Your task to perform on an android device: turn pop-ups off in chrome Image 0: 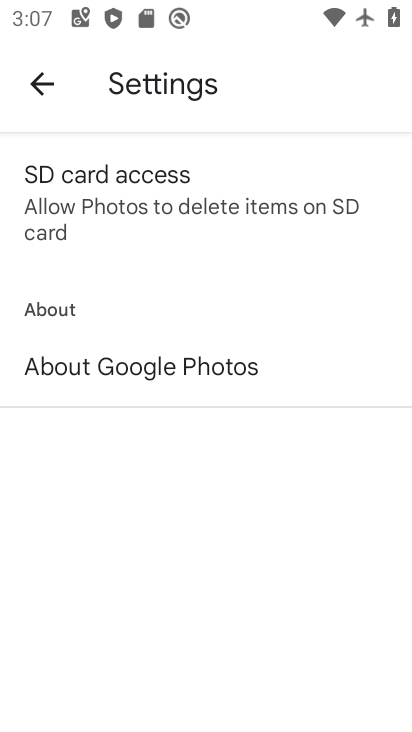
Step 0: press home button
Your task to perform on an android device: turn pop-ups off in chrome Image 1: 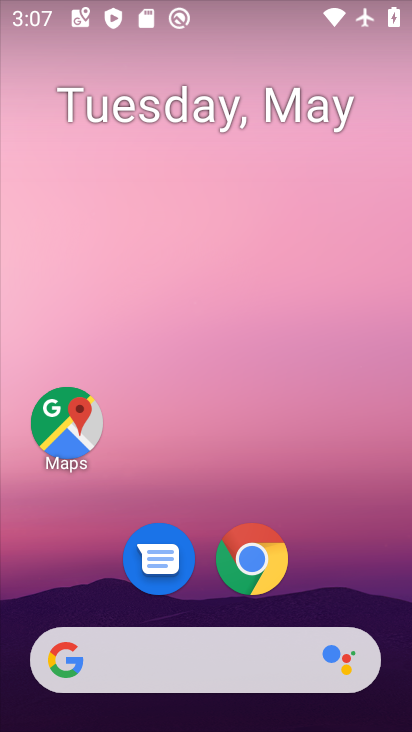
Step 1: click (269, 561)
Your task to perform on an android device: turn pop-ups off in chrome Image 2: 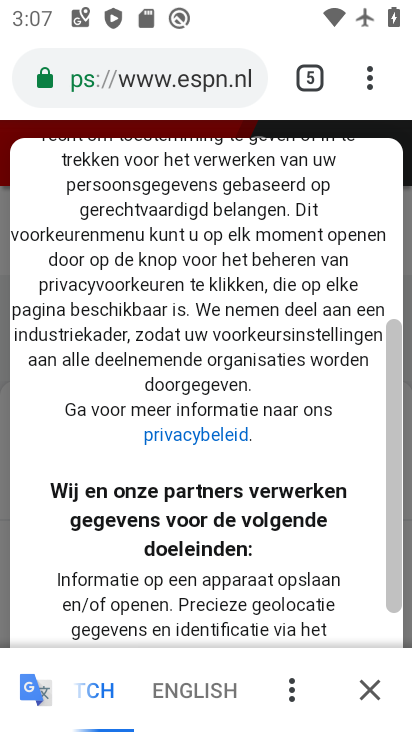
Step 2: drag from (369, 76) to (155, 604)
Your task to perform on an android device: turn pop-ups off in chrome Image 3: 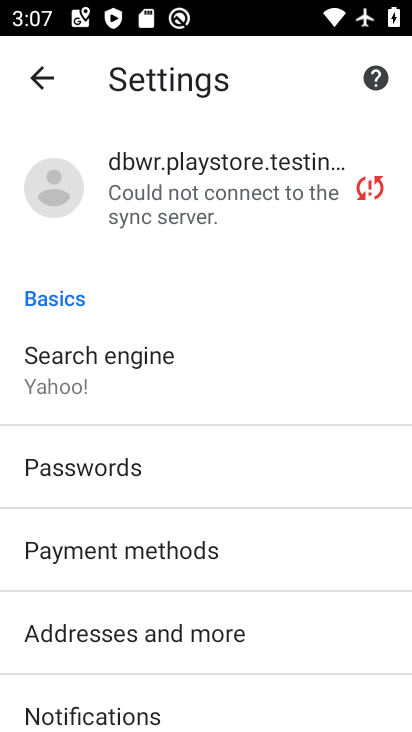
Step 3: drag from (104, 685) to (287, 271)
Your task to perform on an android device: turn pop-ups off in chrome Image 4: 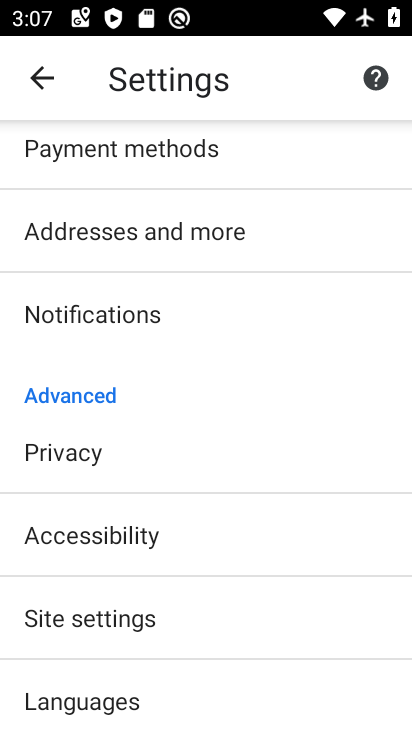
Step 4: drag from (166, 661) to (266, 404)
Your task to perform on an android device: turn pop-ups off in chrome Image 5: 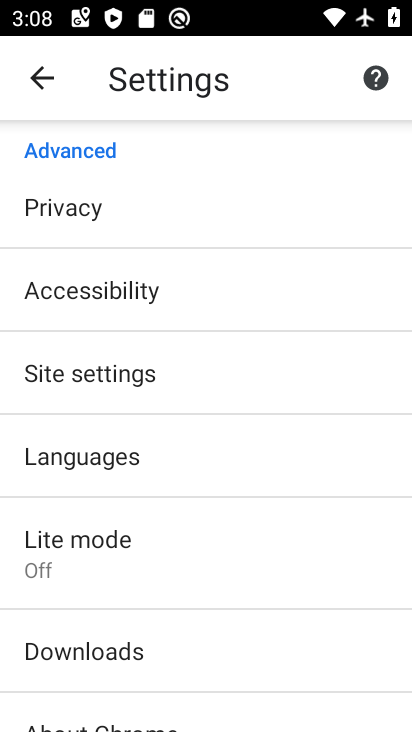
Step 5: click (123, 380)
Your task to perform on an android device: turn pop-ups off in chrome Image 6: 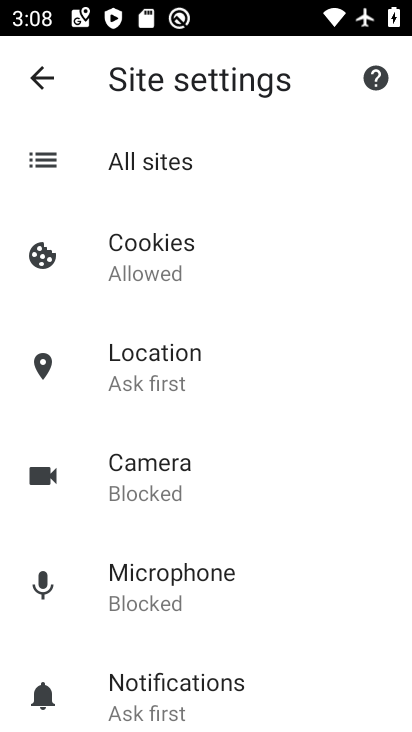
Step 6: drag from (177, 662) to (247, 333)
Your task to perform on an android device: turn pop-ups off in chrome Image 7: 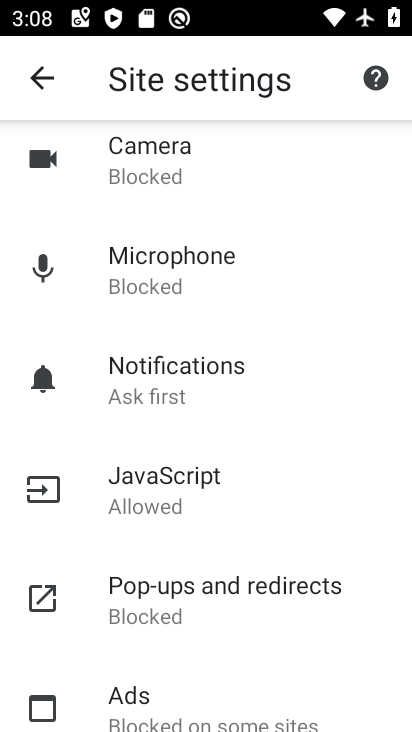
Step 7: click (168, 592)
Your task to perform on an android device: turn pop-ups off in chrome Image 8: 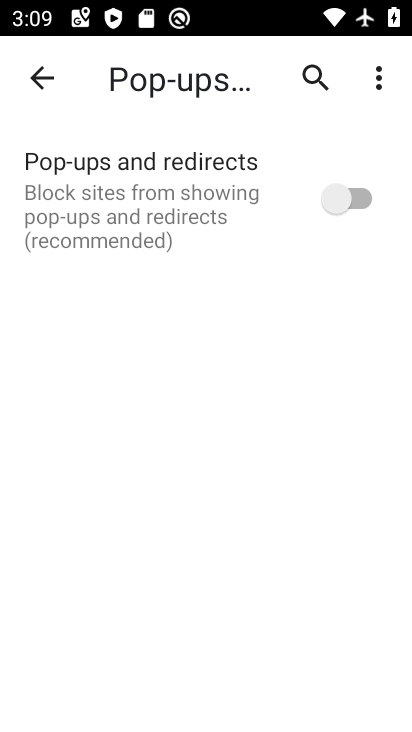
Step 8: task complete